Your task to perform on an android device: open sync settings in chrome Image 0: 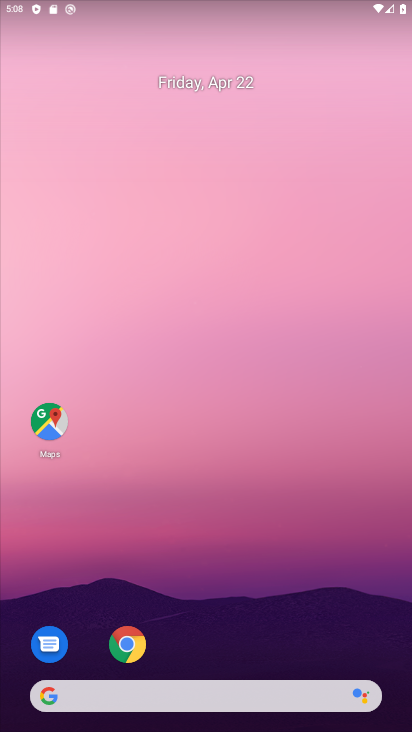
Step 0: click (127, 647)
Your task to perform on an android device: open sync settings in chrome Image 1: 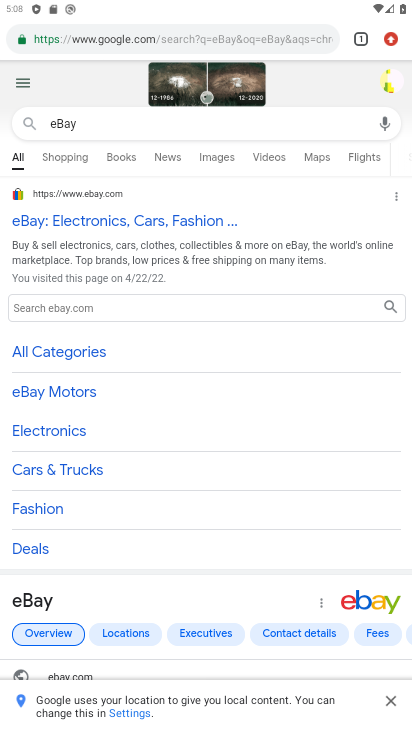
Step 1: click (388, 48)
Your task to perform on an android device: open sync settings in chrome Image 2: 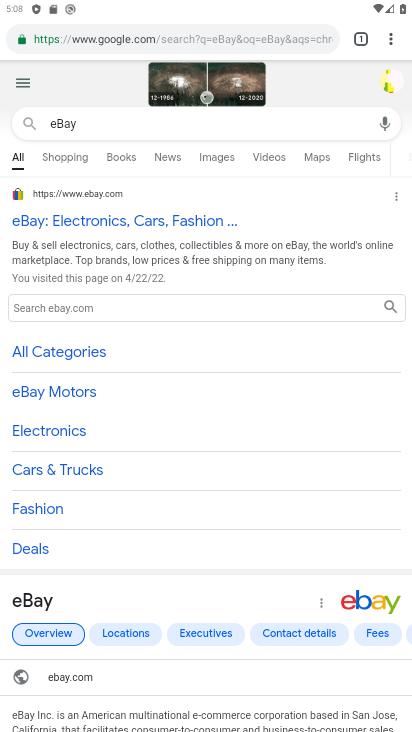
Step 2: click (391, 41)
Your task to perform on an android device: open sync settings in chrome Image 3: 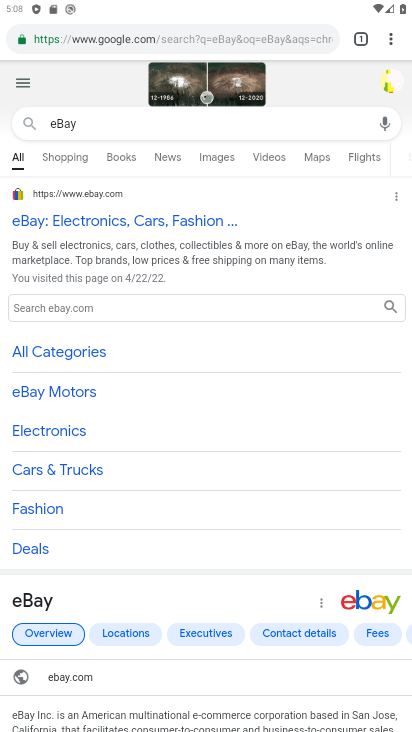
Step 3: click (391, 42)
Your task to perform on an android device: open sync settings in chrome Image 4: 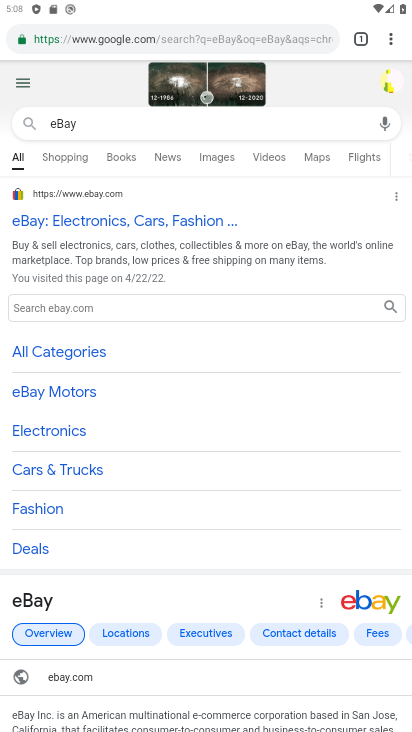
Step 4: click (391, 31)
Your task to perform on an android device: open sync settings in chrome Image 5: 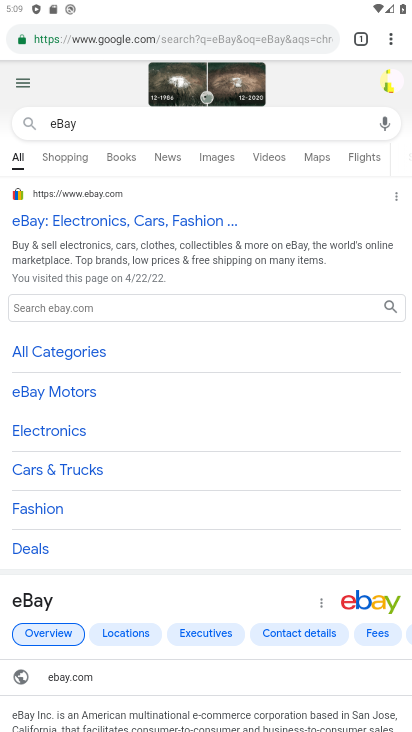
Step 5: click (382, 41)
Your task to perform on an android device: open sync settings in chrome Image 6: 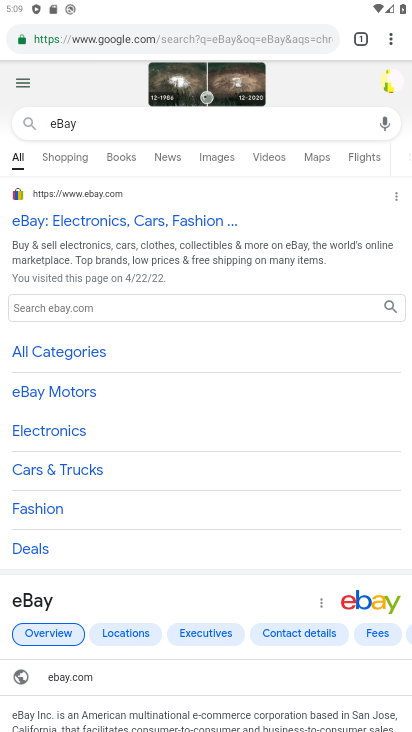
Step 6: click (402, 39)
Your task to perform on an android device: open sync settings in chrome Image 7: 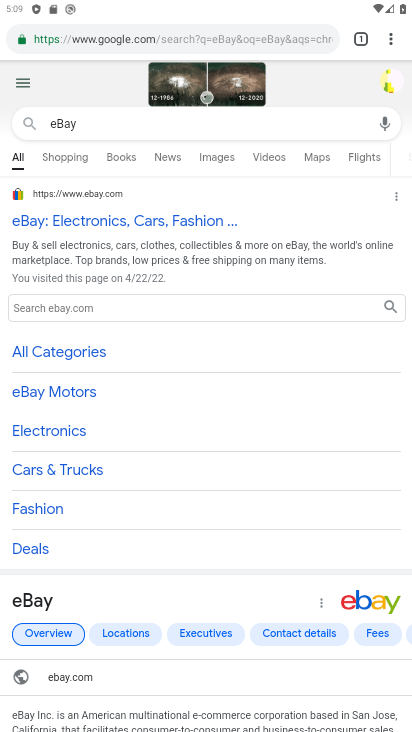
Step 7: click (400, 43)
Your task to perform on an android device: open sync settings in chrome Image 8: 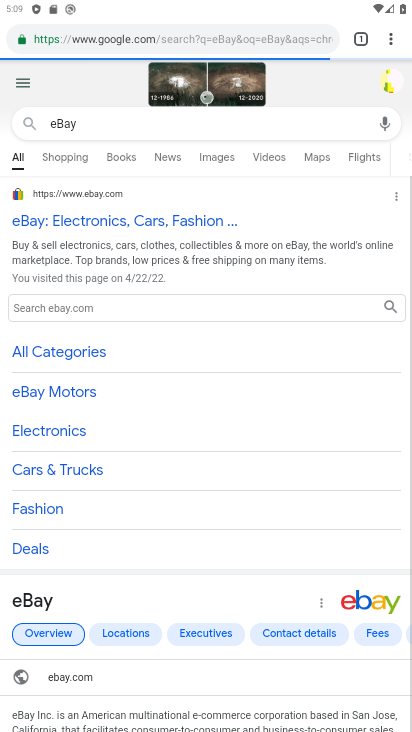
Step 8: click (387, 46)
Your task to perform on an android device: open sync settings in chrome Image 9: 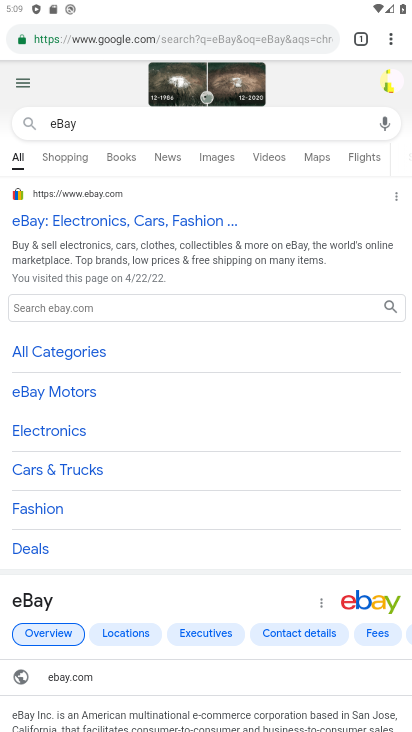
Step 9: click (397, 31)
Your task to perform on an android device: open sync settings in chrome Image 10: 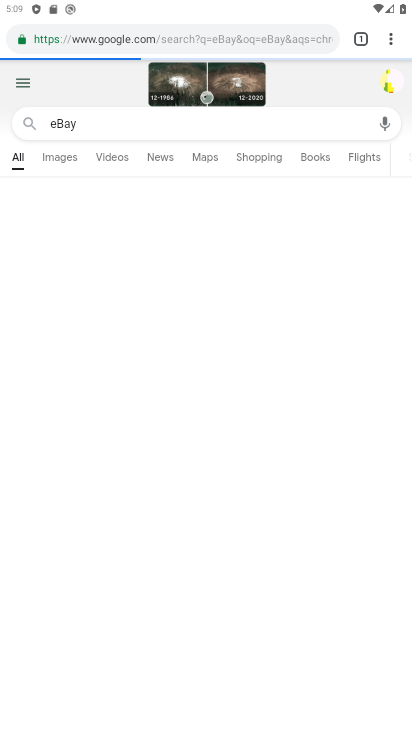
Step 10: click (316, 442)
Your task to perform on an android device: open sync settings in chrome Image 11: 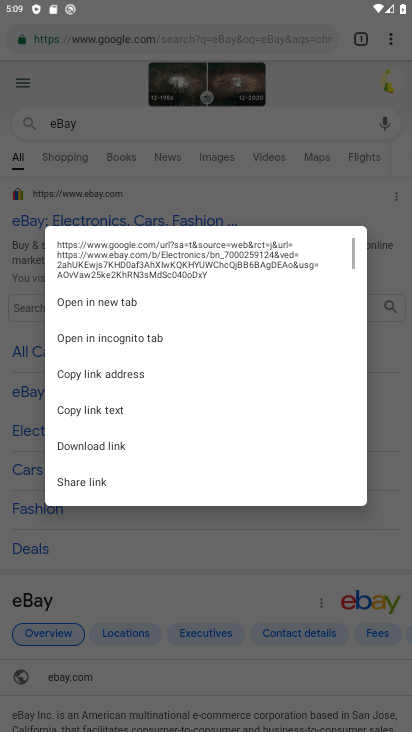
Step 11: click (356, 183)
Your task to perform on an android device: open sync settings in chrome Image 12: 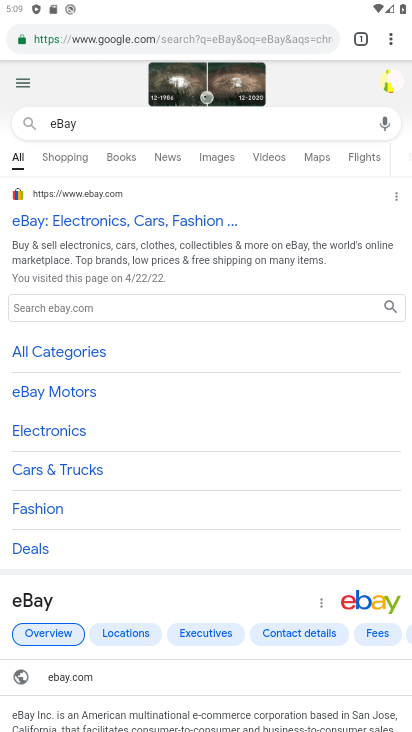
Step 12: click (378, 33)
Your task to perform on an android device: open sync settings in chrome Image 13: 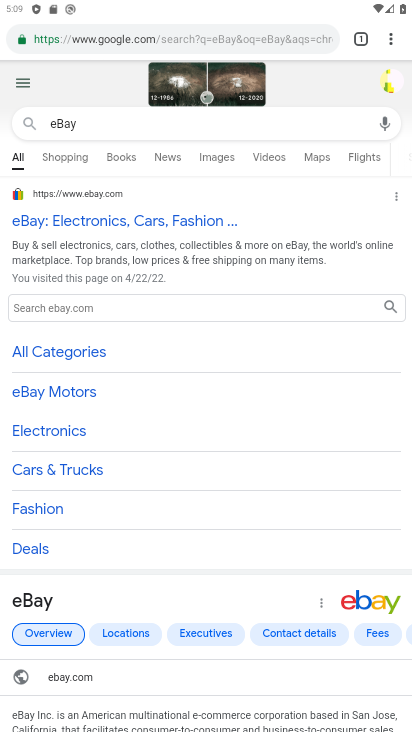
Step 13: click (388, 40)
Your task to perform on an android device: open sync settings in chrome Image 14: 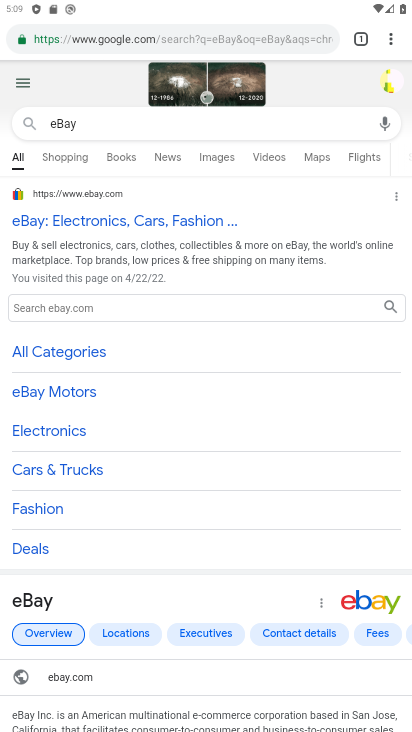
Step 14: click (392, 48)
Your task to perform on an android device: open sync settings in chrome Image 15: 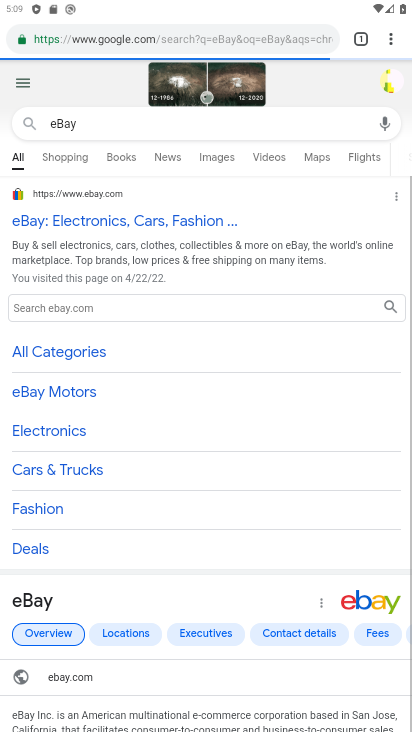
Step 15: click (387, 31)
Your task to perform on an android device: open sync settings in chrome Image 16: 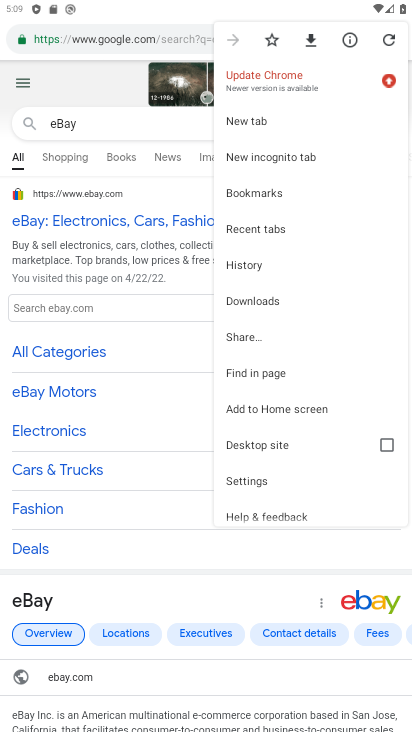
Step 16: click (239, 482)
Your task to perform on an android device: open sync settings in chrome Image 17: 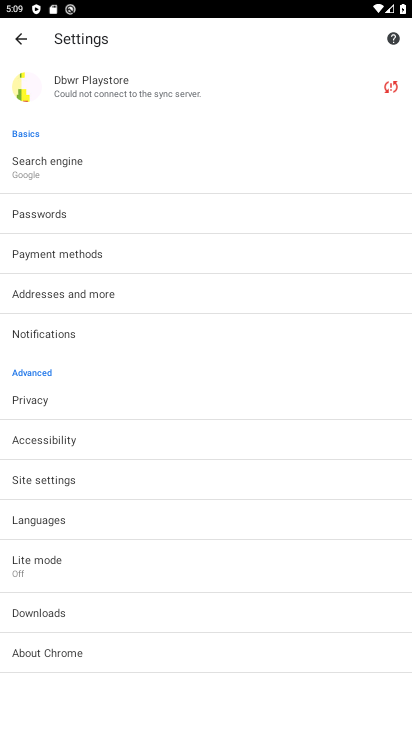
Step 17: click (143, 87)
Your task to perform on an android device: open sync settings in chrome Image 18: 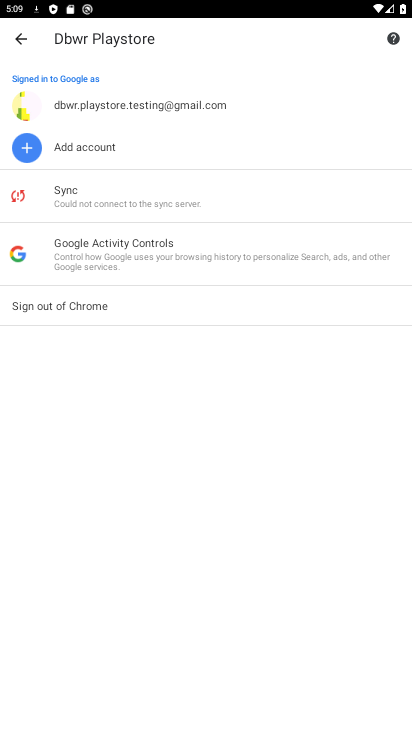
Step 18: click (153, 188)
Your task to perform on an android device: open sync settings in chrome Image 19: 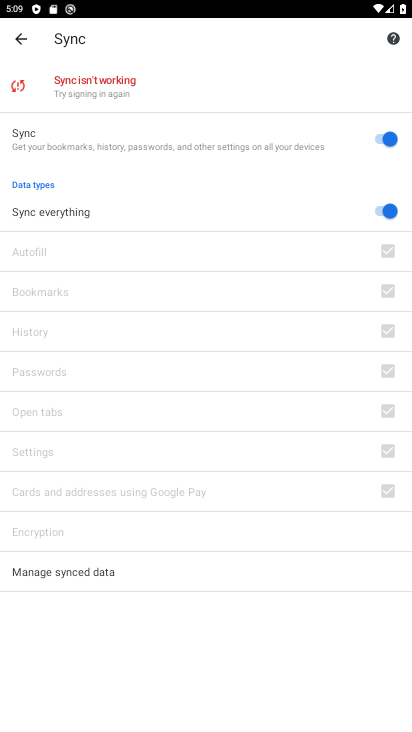
Step 19: task complete